Your task to perform on an android device: Go to calendar. Show me events next week Image 0: 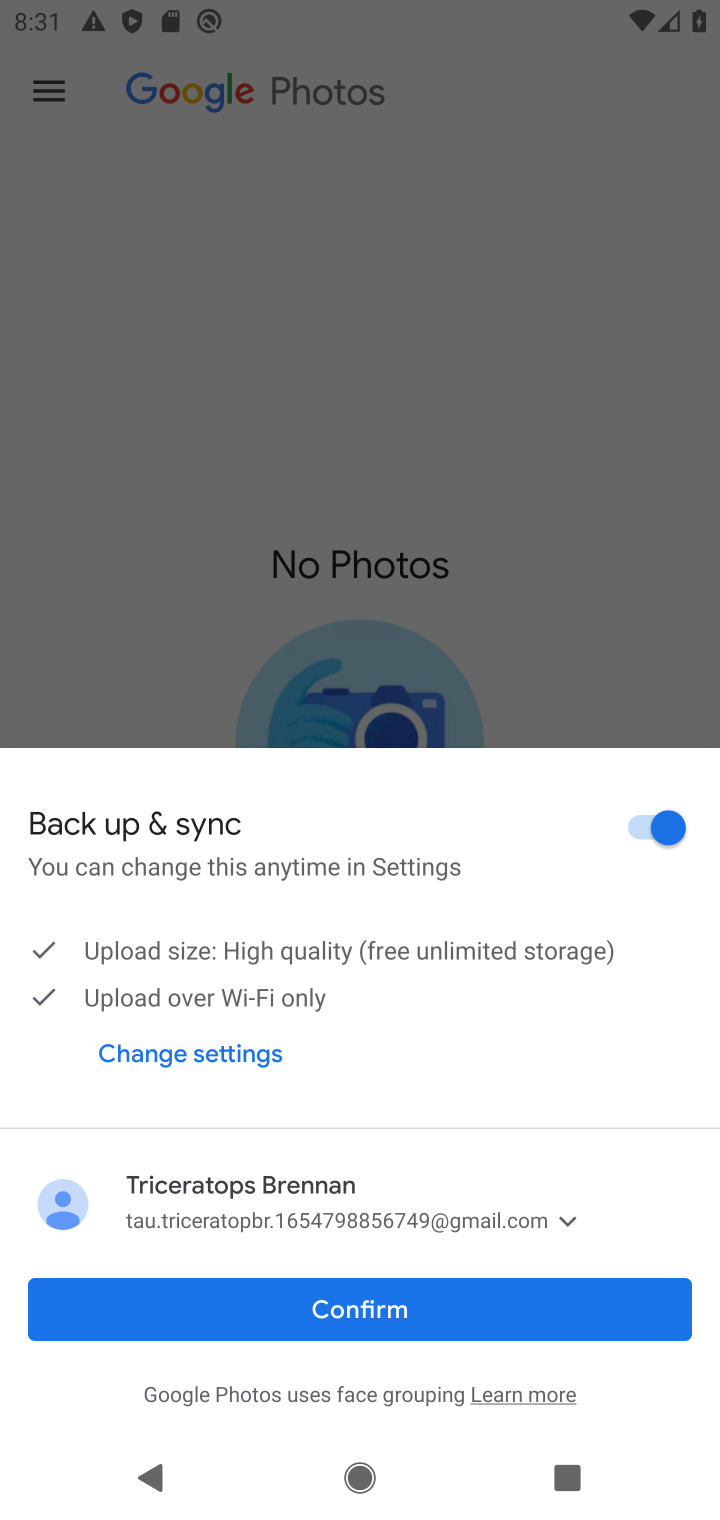
Step 0: press home button
Your task to perform on an android device: Go to calendar. Show me events next week Image 1: 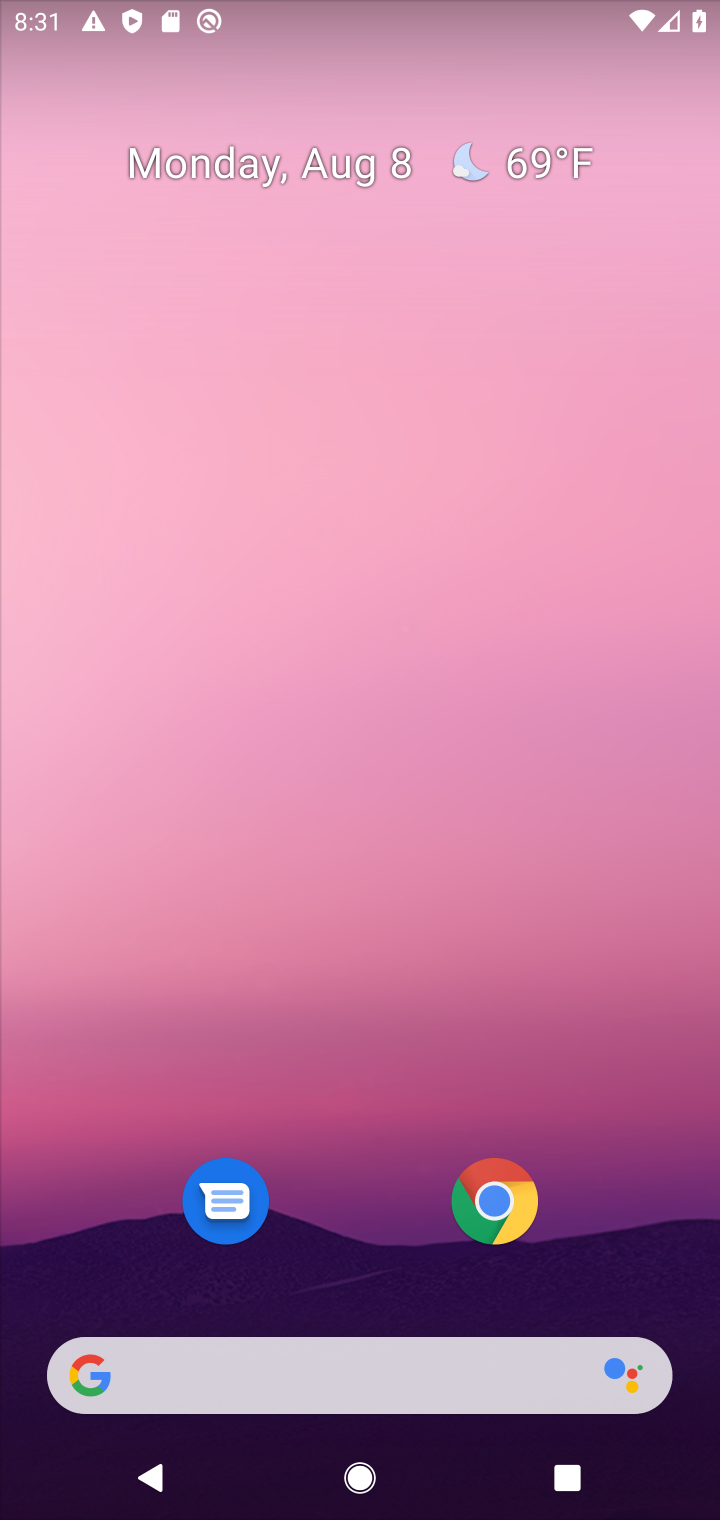
Step 1: drag from (379, 1205) to (405, 363)
Your task to perform on an android device: Go to calendar. Show me events next week Image 2: 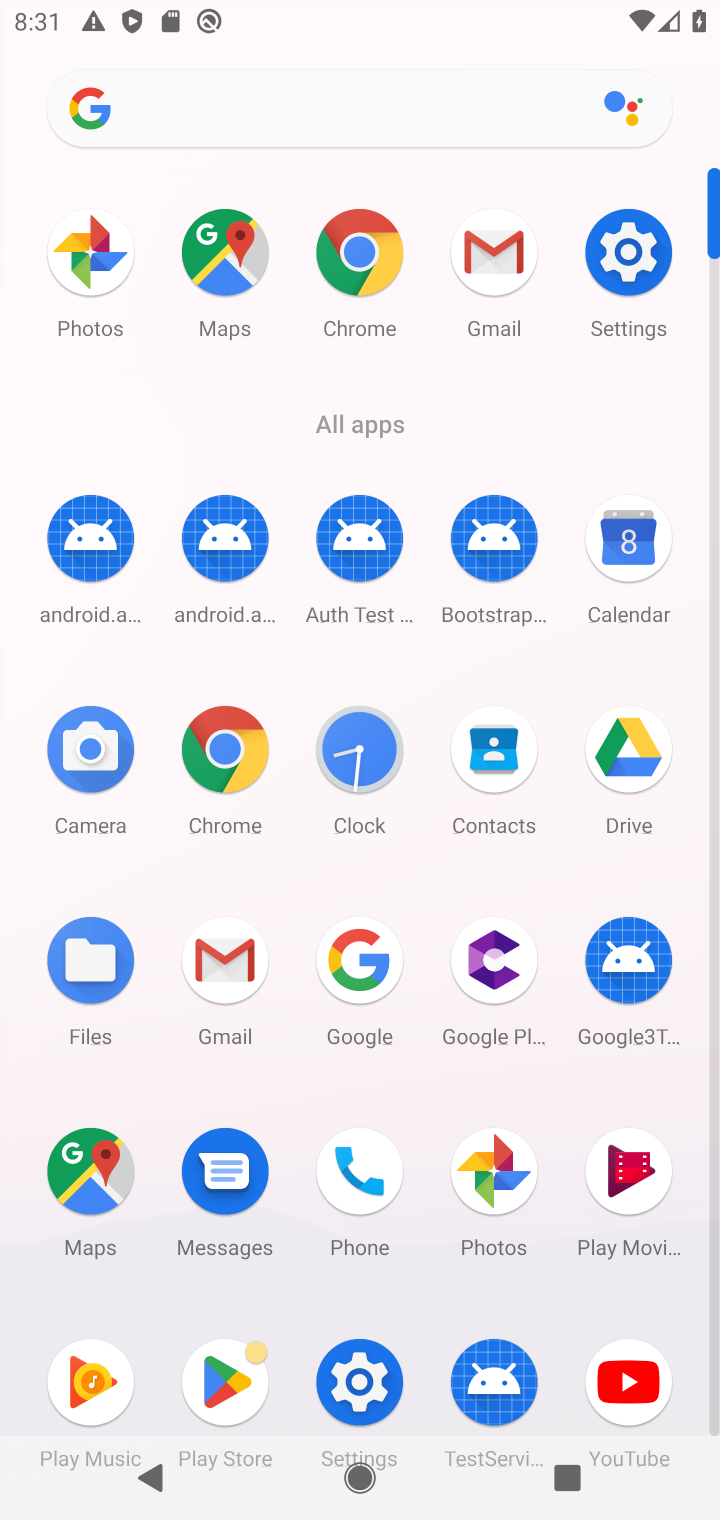
Step 2: click (635, 546)
Your task to perform on an android device: Go to calendar. Show me events next week Image 3: 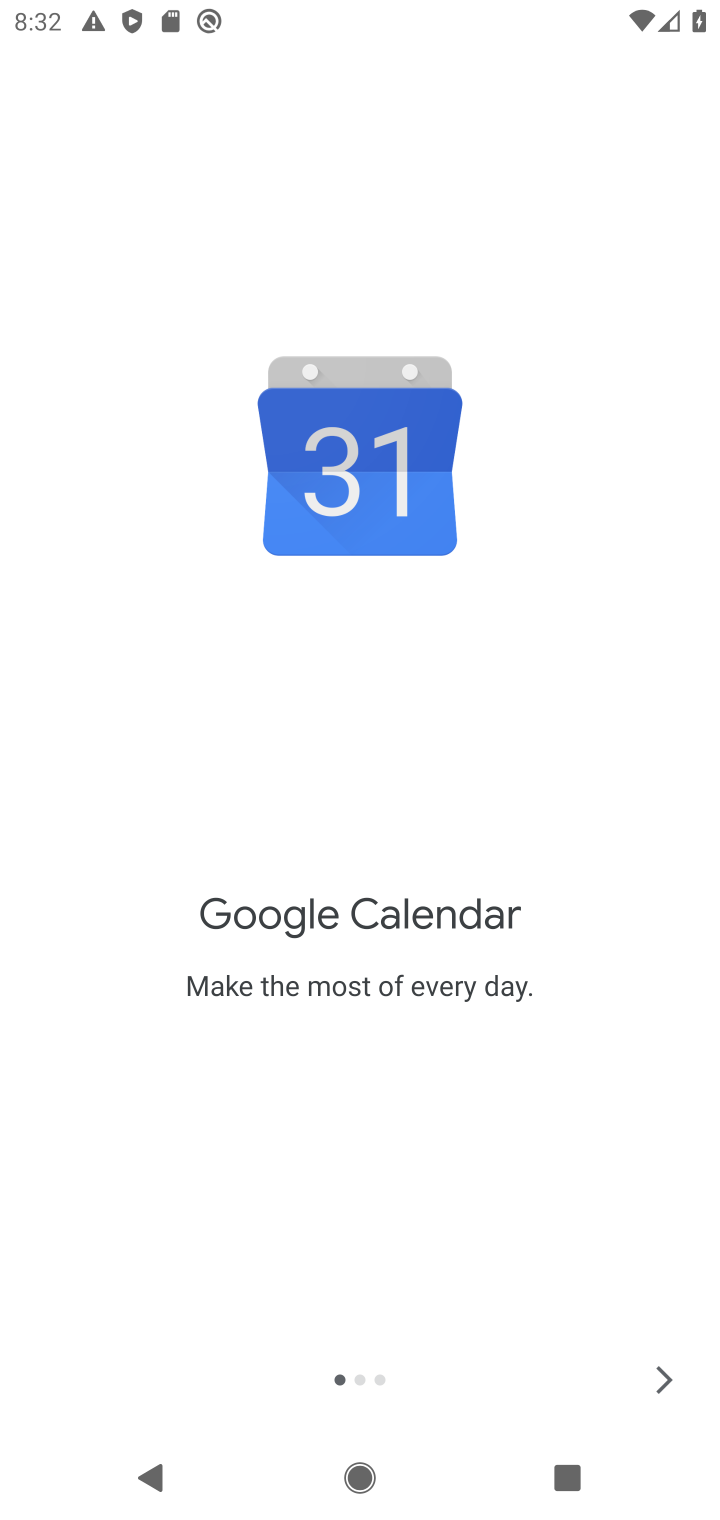
Step 3: click (647, 1368)
Your task to perform on an android device: Go to calendar. Show me events next week Image 4: 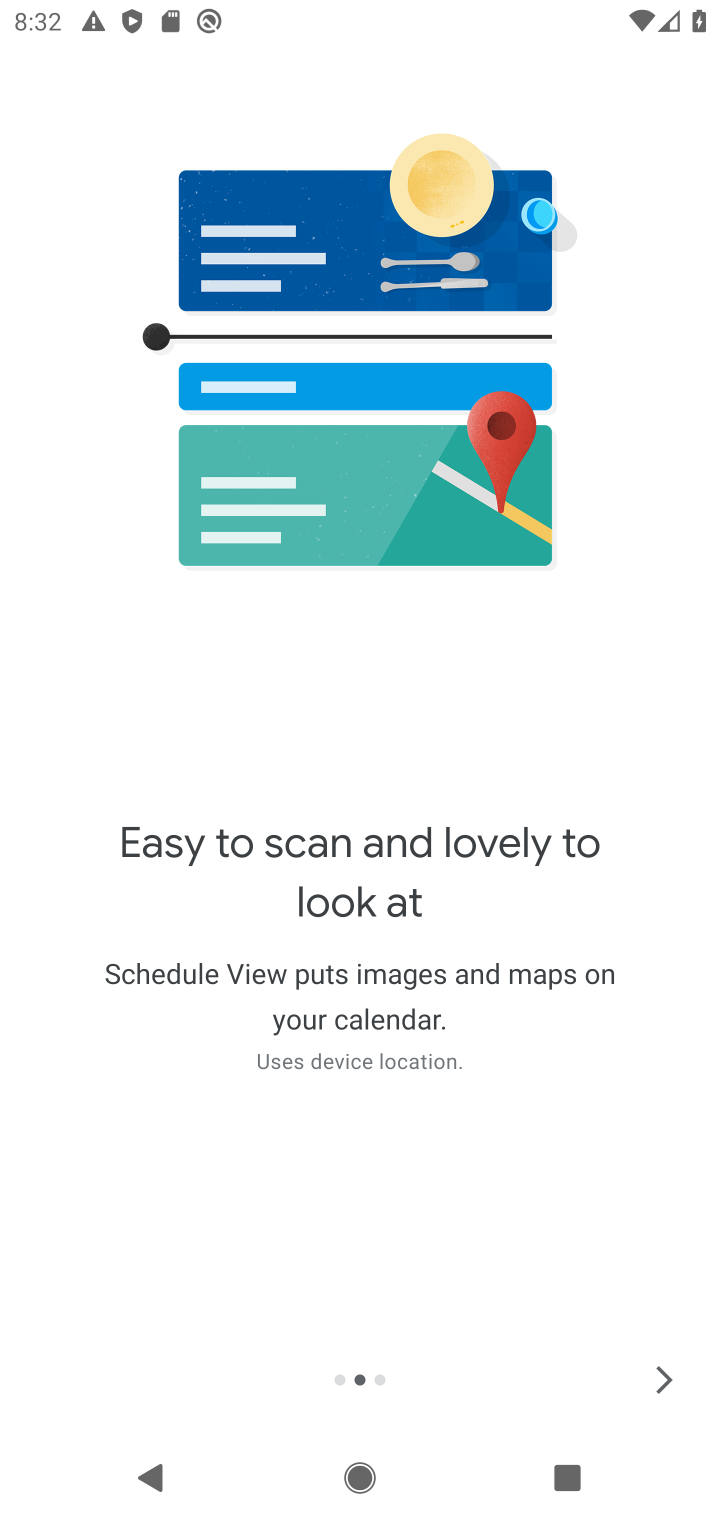
Step 4: click (666, 1372)
Your task to perform on an android device: Go to calendar. Show me events next week Image 5: 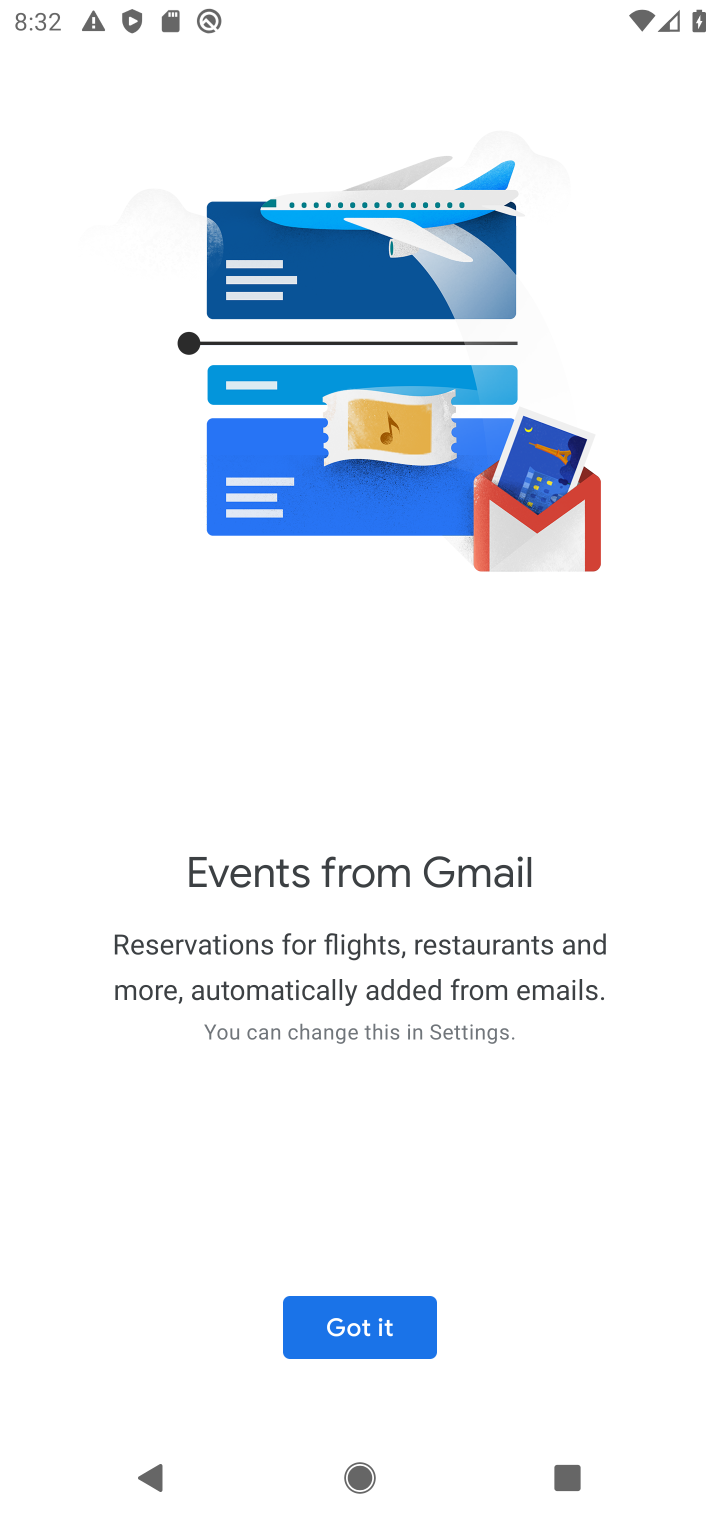
Step 5: click (329, 1327)
Your task to perform on an android device: Go to calendar. Show me events next week Image 6: 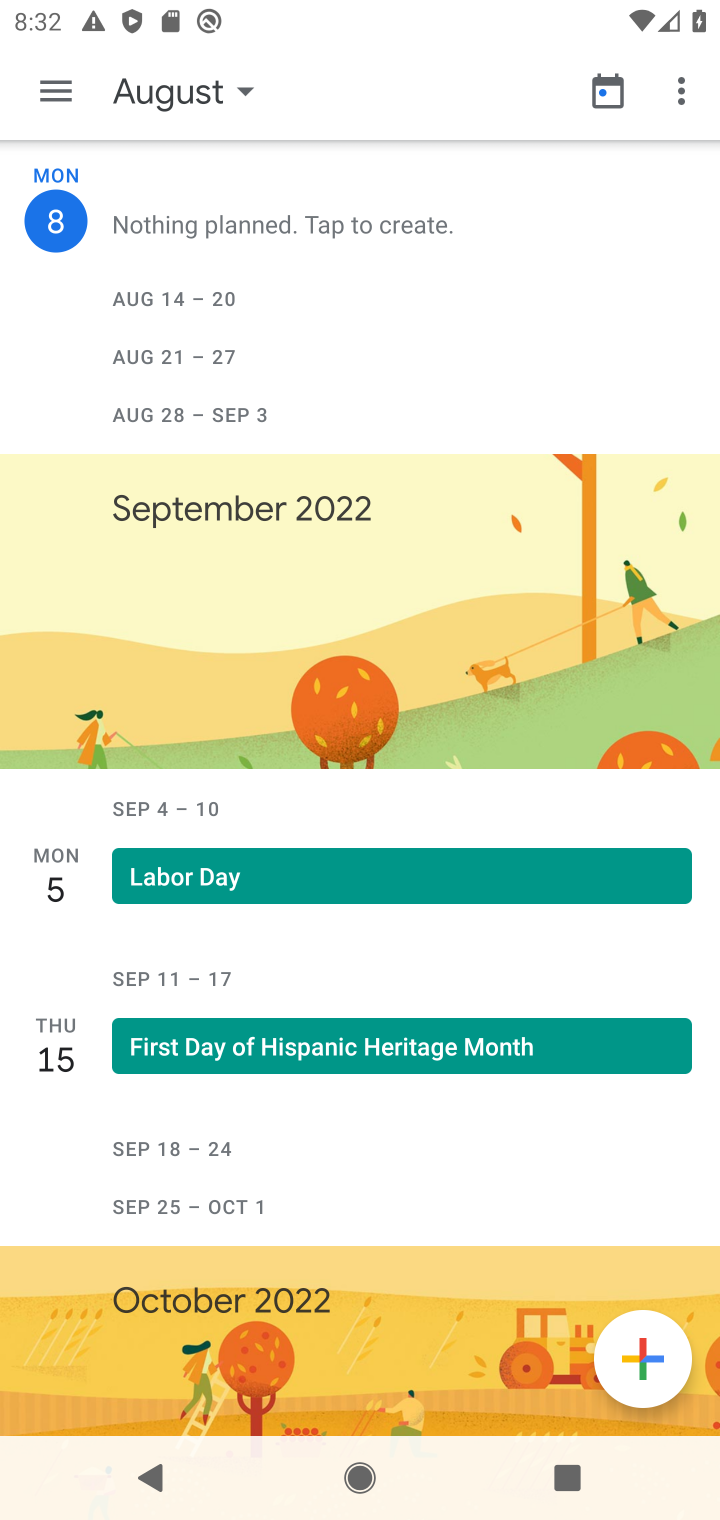
Step 6: click (243, 85)
Your task to perform on an android device: Go to calendar. Show me events next week Image 7: 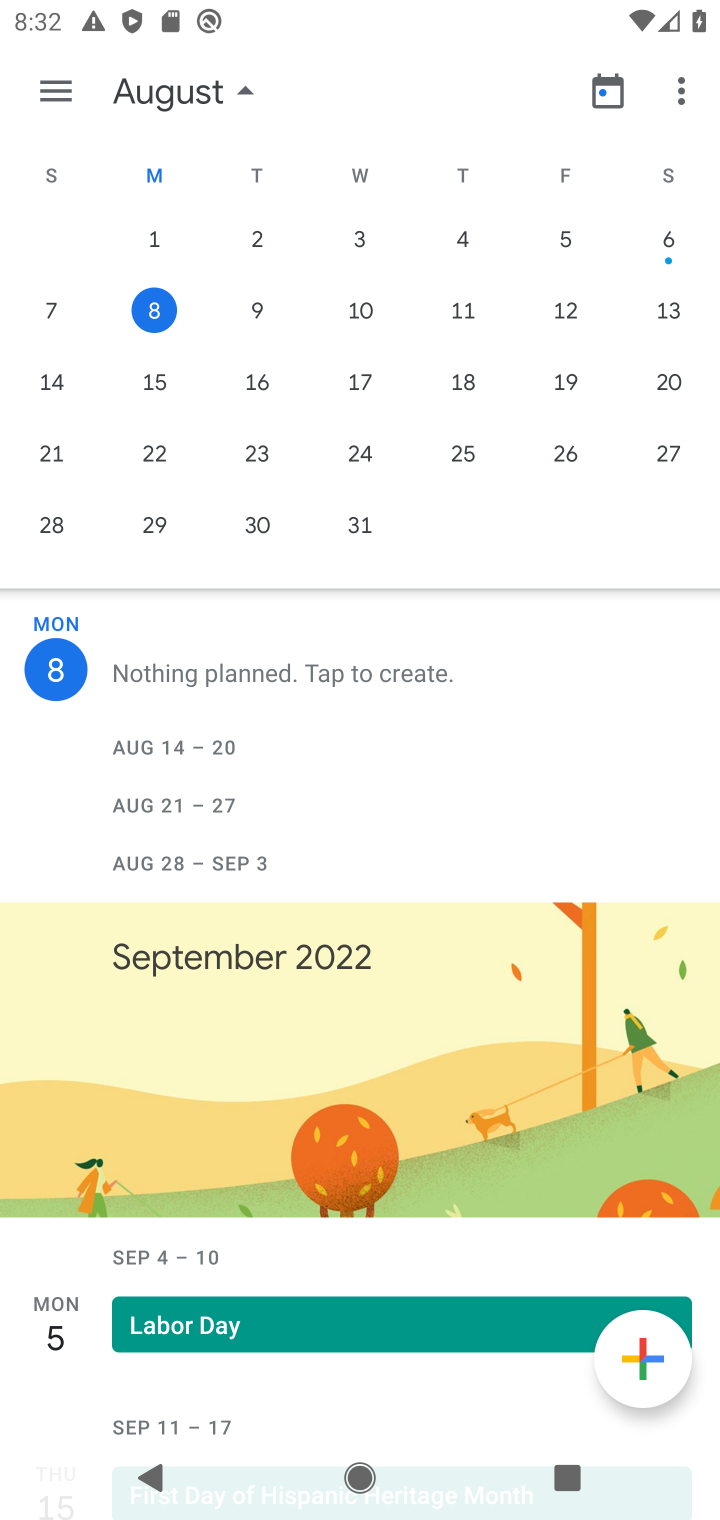
Step 7: click (154, 383)
Your task to perform on an android device: Go to calendar. Show me events next week Image 8: 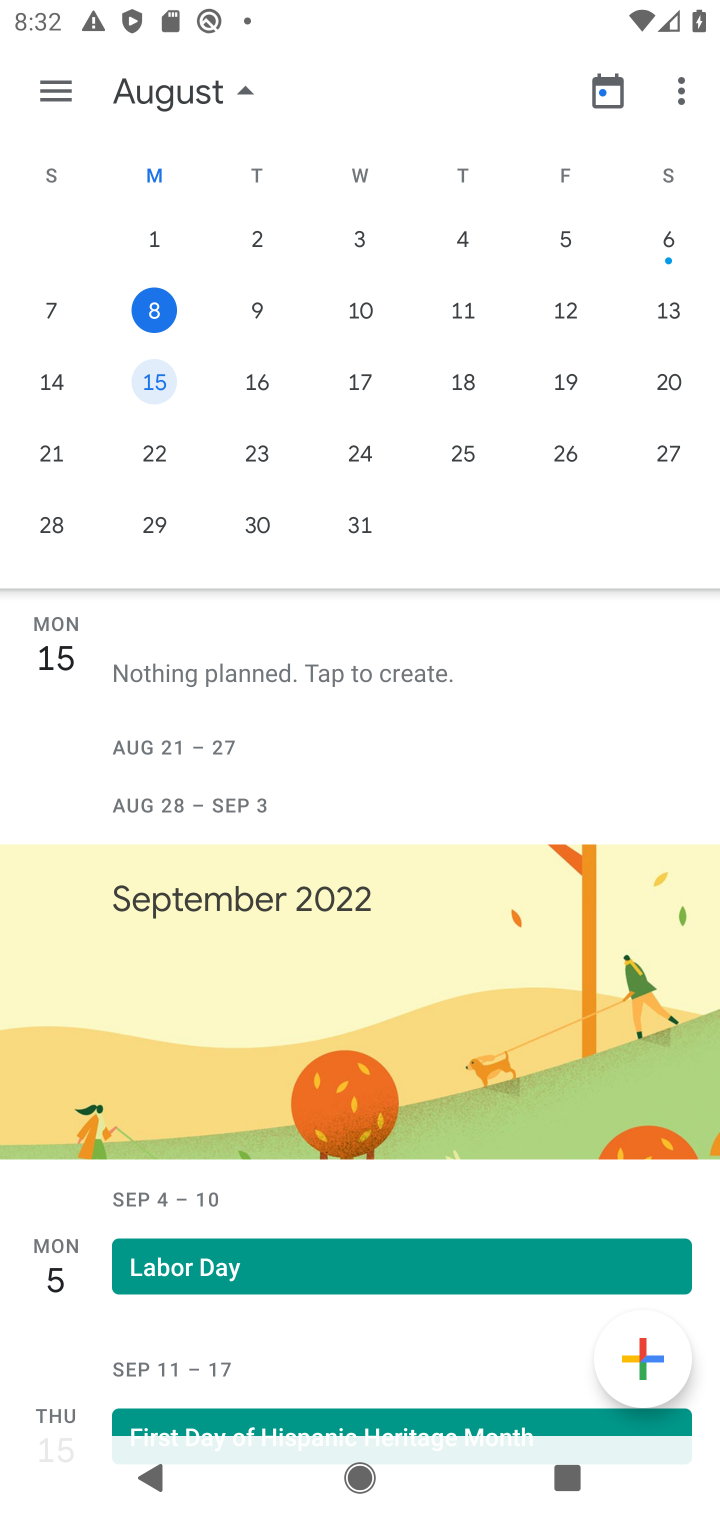
Step 8: task complete